Your task to perform on an android device: turn off data saver in the chrome app Image 0: 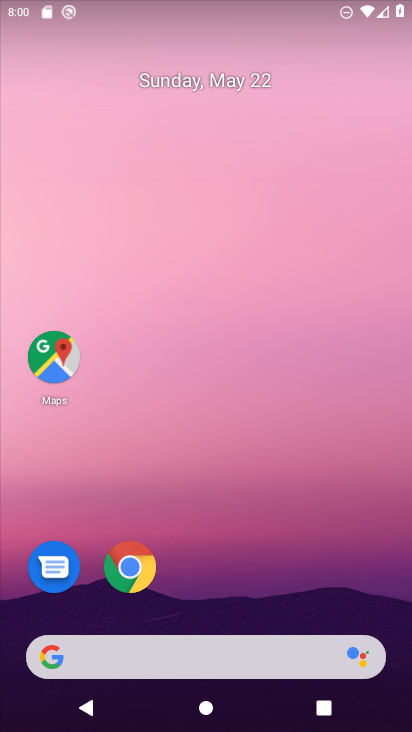
Step 0: click (138, 576)
Your task to perform on an android device: turn off data saver in the chrome app Image 1: 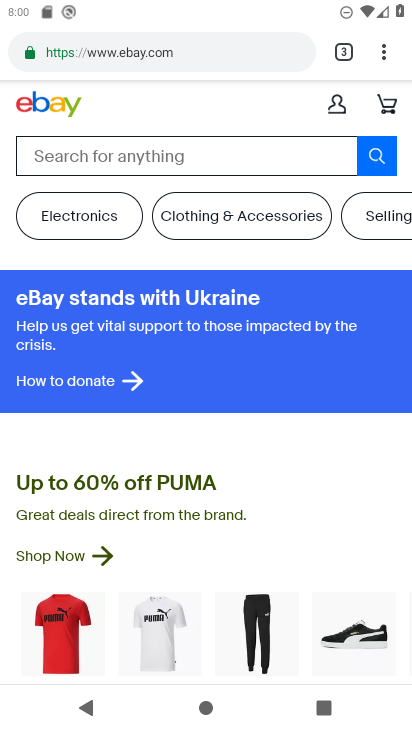
Step 1: drag from (381, 49) to (197, 601)
Your task to perform on an android device: turn off data saver in the chrome app Image 2: 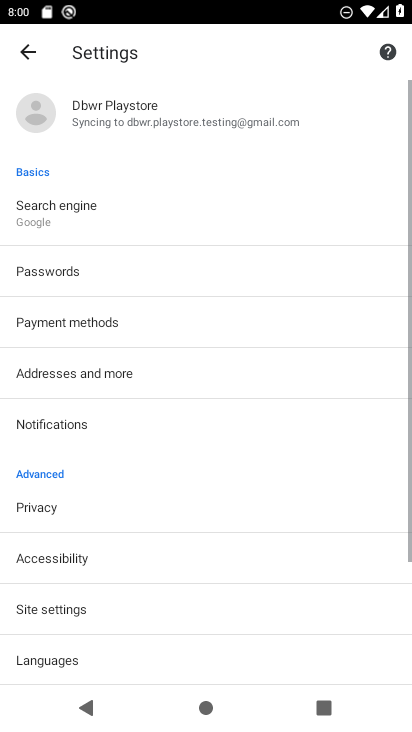
Step 2: drag from (120, 645) to (264, 172)
Your task to perform on an android device: turn off data saver in the chrome app Image 3: 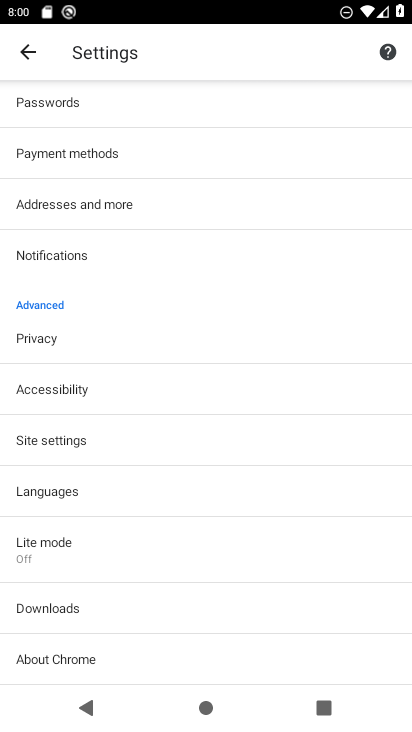
Step 3: click (83, 564)
Your task to perform on an android device: turn off data saver in the chrome app Image 4: 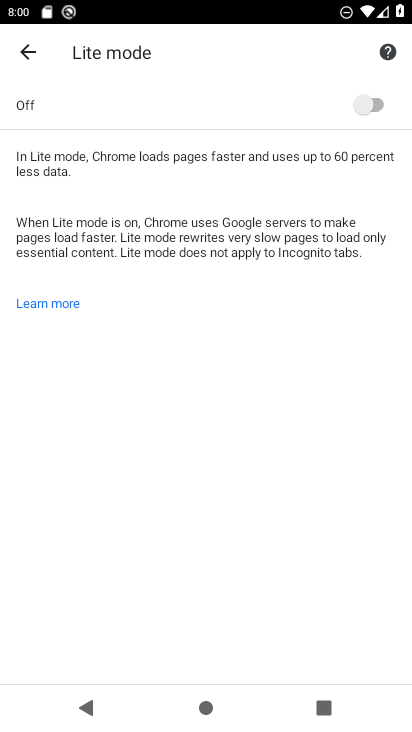
Step 4: task complete